Your task to perform on an android device: turn on airplane mode Image 0: 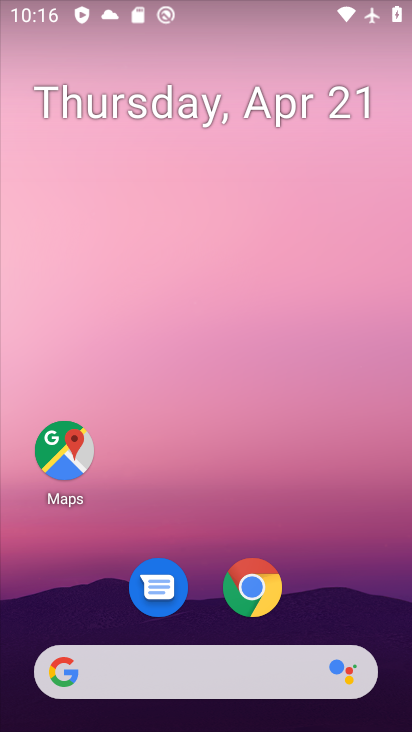
Step 0: drag from (363, 484) to (367, 26)
Your task to perform on an android device: turn on airplane mode Image 1: 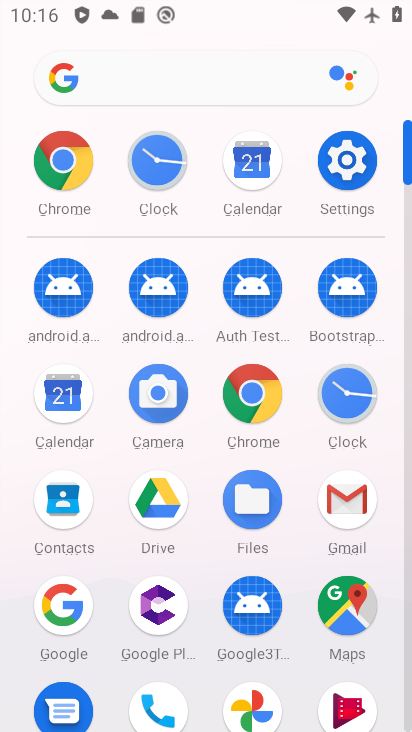
Step 1: click (350, 159)
Your task to perform on an android device: turn on airplane mode Image 2: 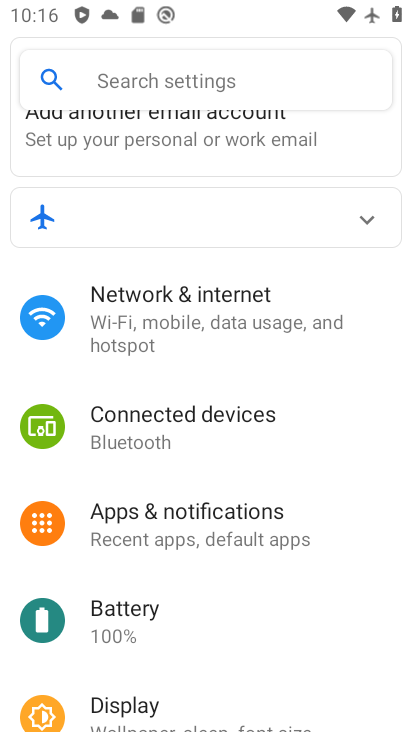
Step 2: drag from (361, 578) to (361, 393)
Your task to perform on an android device: turn on airplane mode Image 3: 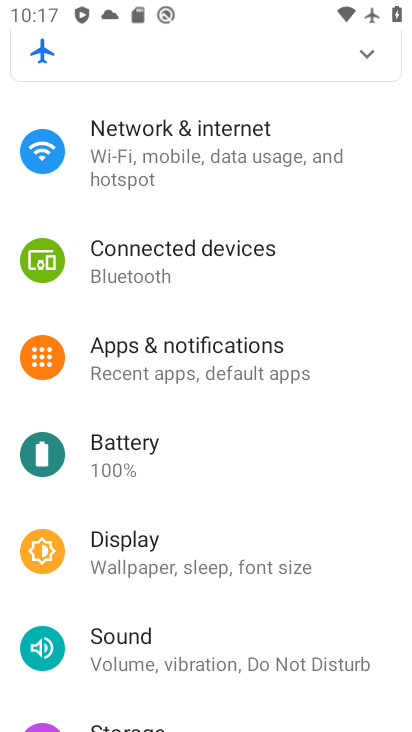
Step 3: drag from (365, 555) to (372, 400)
Your task to perform on an android device: turn on airplane mode Image 4: 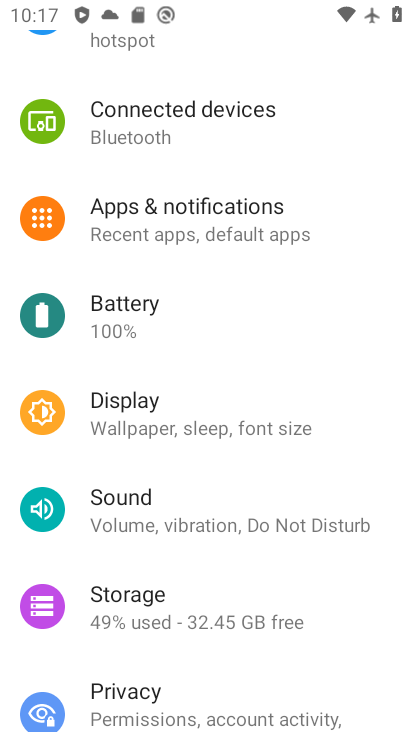
Step 4: drag from (350, 609) to (359, 385)
Your task to perform on an android device: turn on airplane mode Image 5: 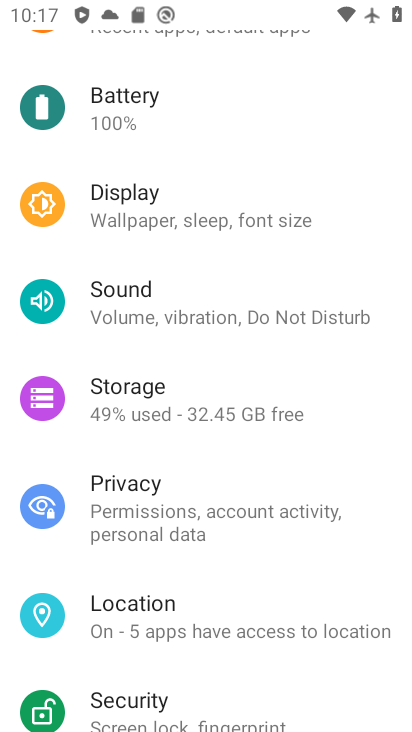
Step 5: drag from (362, 211) to (351, 456)
Your task to perform on an android device: turn on airplane mode Image 6: 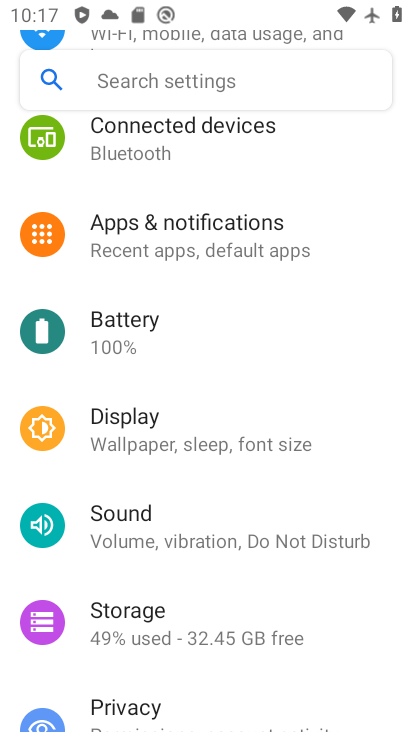
Step 6: drag from (373, 247) to (356, 419)
Your task to perform on an android device: turn on airplane mode Image 7: 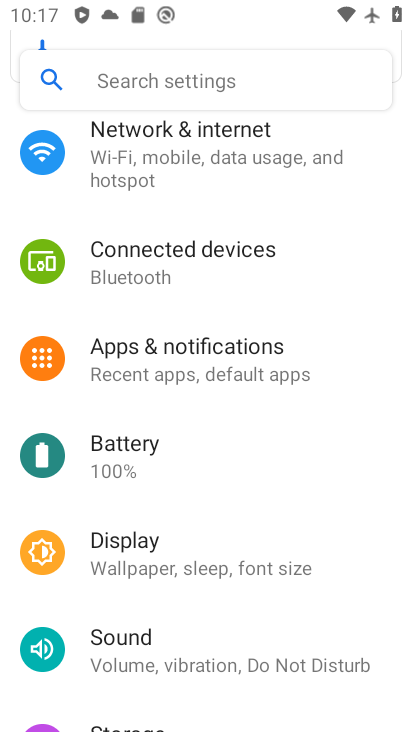
Step 7: drag from (366, 240) to (356, 407)
Your task to perform on an android device: turn on airplane mode Image 8: 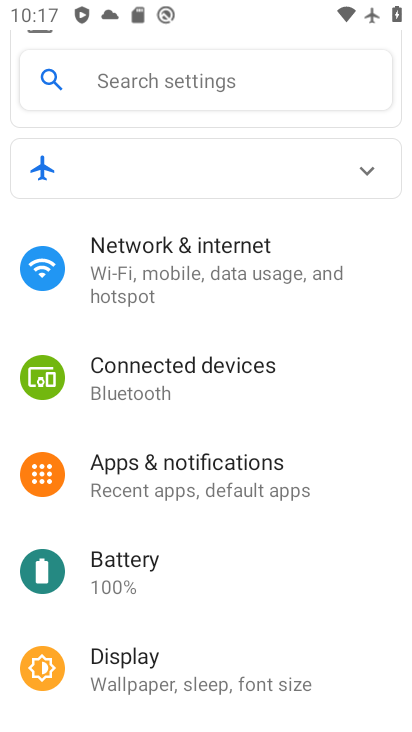
Step 8: click (227, 264)
Your task to perform on an android device: turn on airplane mode Image 9: 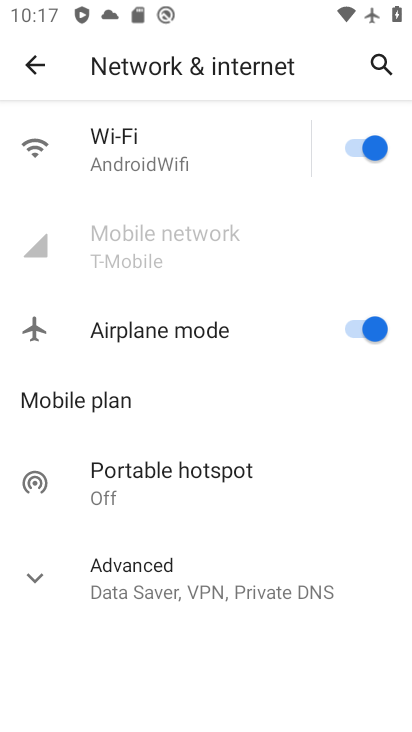
Step 9: task complete